Your task to perform on an android device: move a message to another label in the gmail app Image 0: 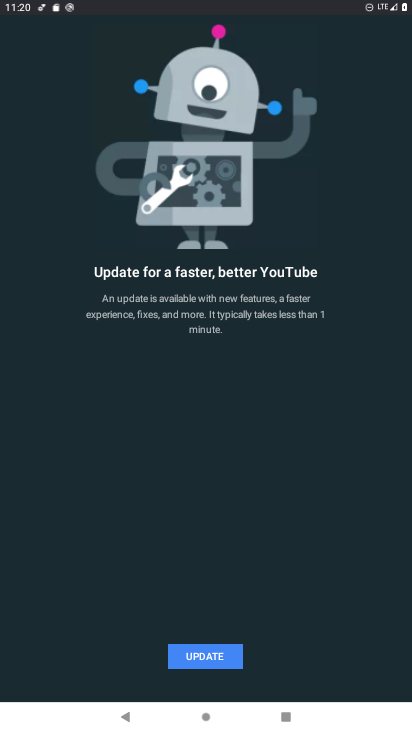
Step 0: press home button
Your task to perform on an android device: move a message to another label in the gmail app Image 1: 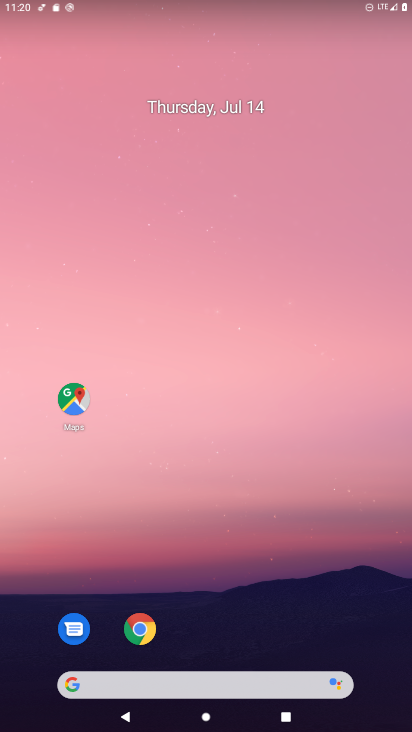
Step 1: drag from (273, 632) to (267, 63)
Your task to perform on an android device: move a message to another label in the gmail app Image 2: 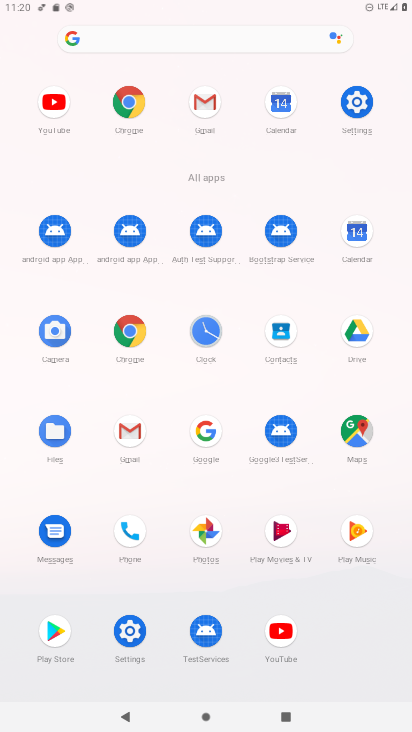
Step 2: click (130, 440)
Your task to perform on an android device: move a message to another label in the gmail app Image 3: 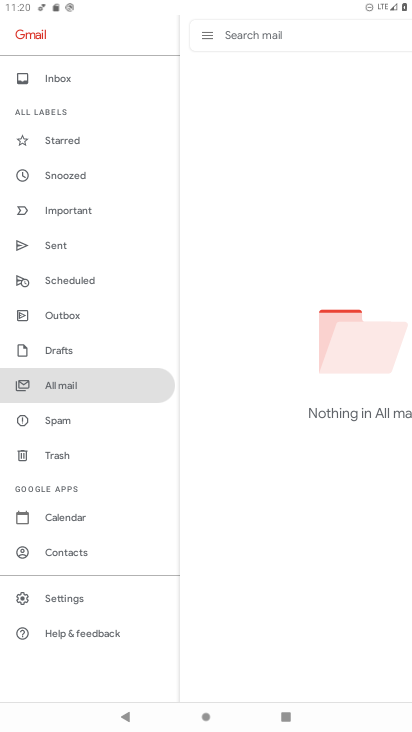
Step 3: task complete